Your task to perform on an android device: Open privacy settings Image 0: 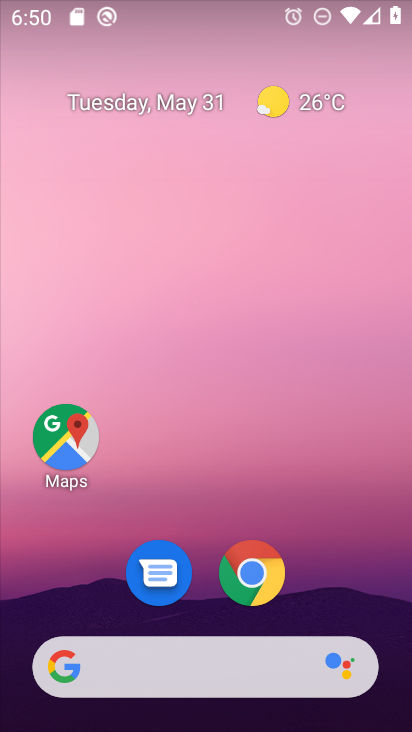
Step 0: drag from (394, 652) to (245, 53)
Your task to perform on an android device: Open privacy settings Image 1: 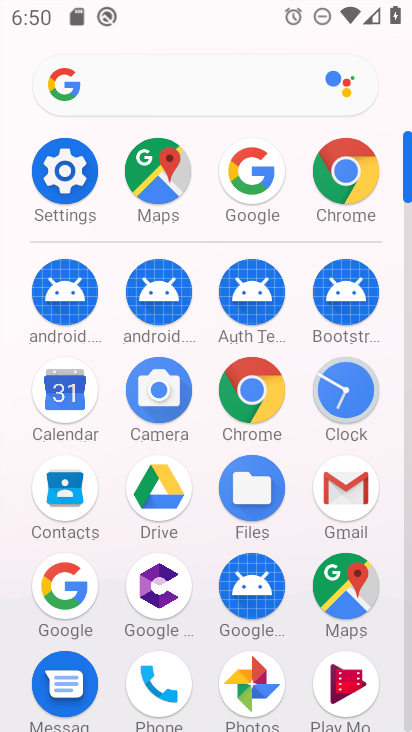
Step 1: click (76, 184)
Your task to perform on an android device: Open privacy settings Image 2: 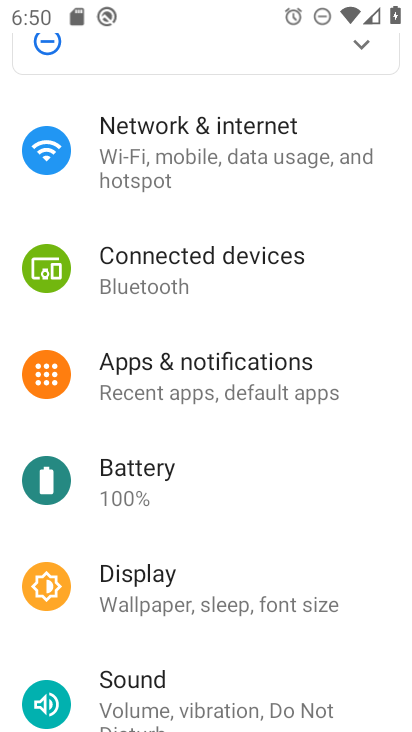
Step 2: drag from (183, 567) to (205, 154)
Your task to perform on an android device: Open privacy settings Image 3: 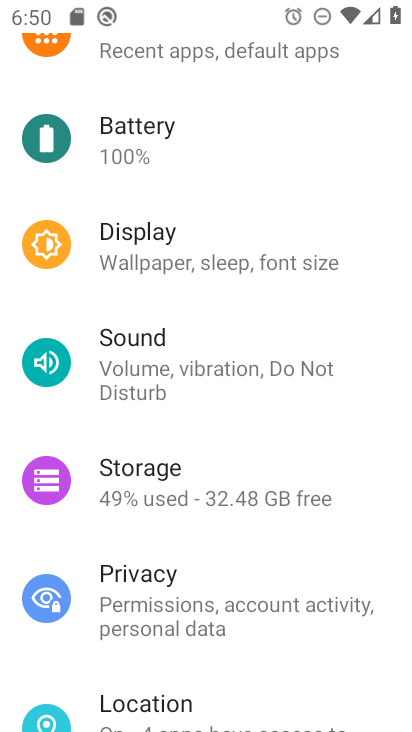
Step 3: click (230, 620)
Your task to perform on an android device: Open privacy settings Image 4: 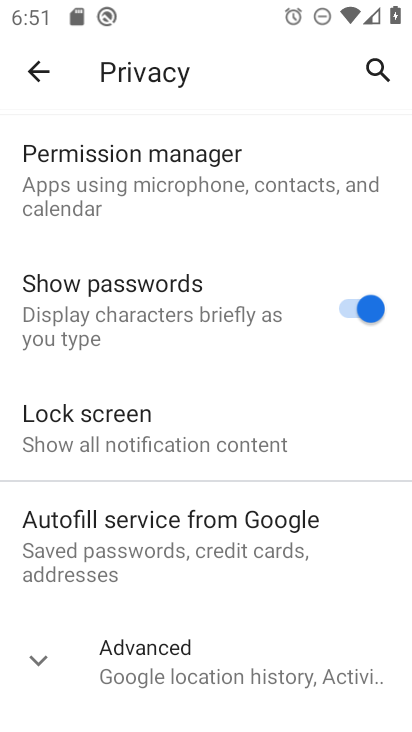
Step 4: task complete